Your task to perform on an android device: Open Android settings Image 0: 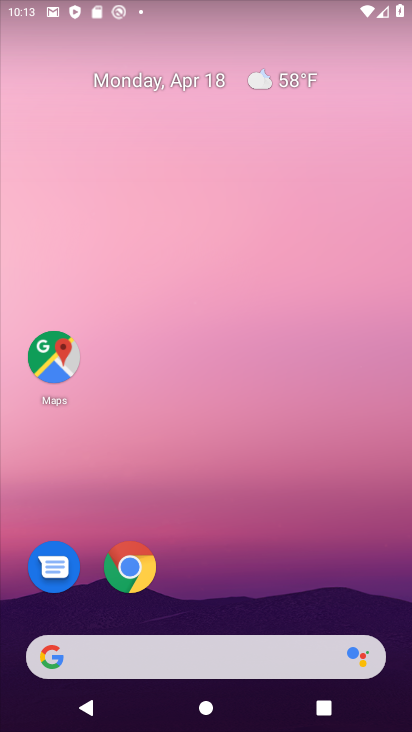
Step 0: drag from (221, 722) to (222, 103)
Your task to perform on an android device: Open Android settings Image 1: 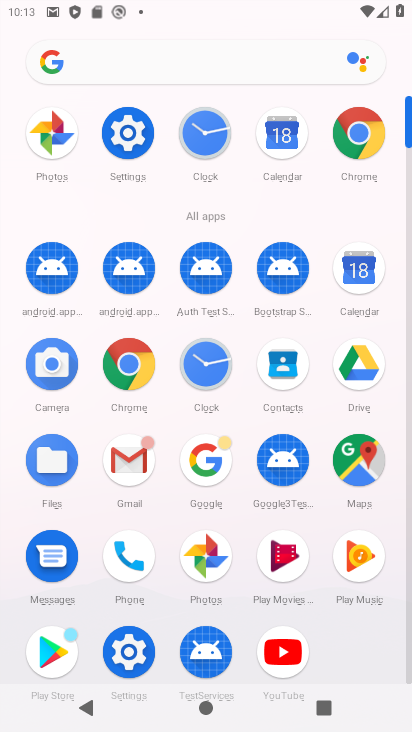
Step 1: click (124, 135)
Your task to perform on an android device: Open Android settings Image 2: 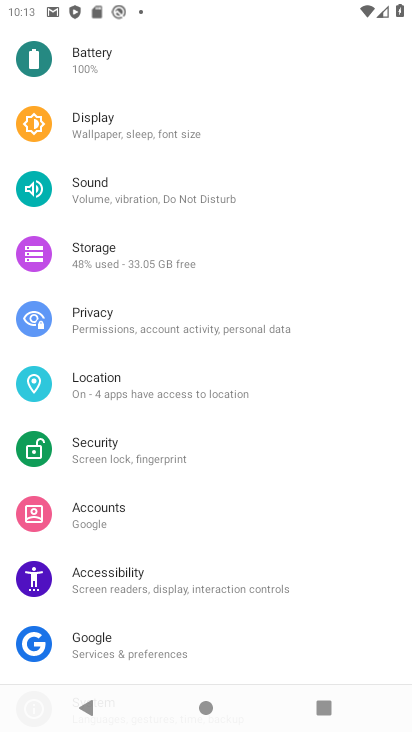
Step 2: drag from (237, 641) to (240, 192)
Your task to perform on an android device: Open Android settings Image 3: 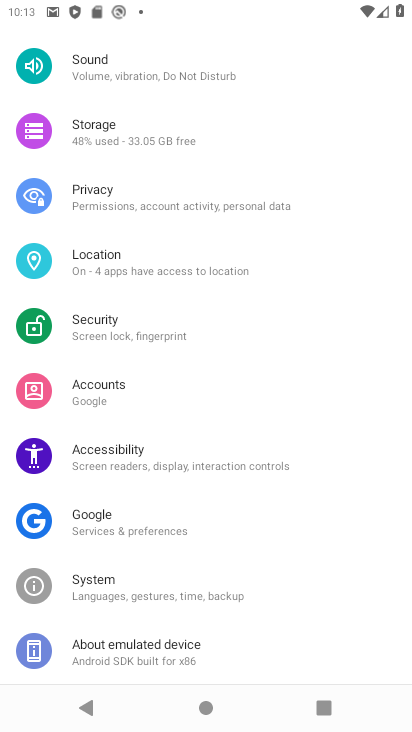
Step 3: click (123, 652)
Your task to perform on an android device: Open Android settings Image 4: 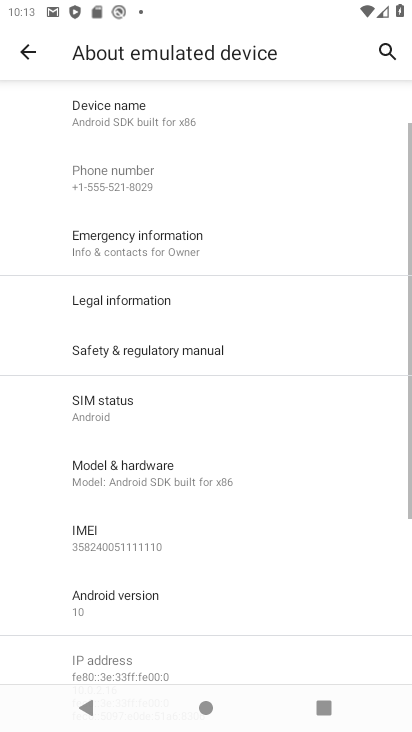
Step 4: drag from (175, 639) to (210, 277)
Your task to perform on an android device: Open Android settings Image 5: 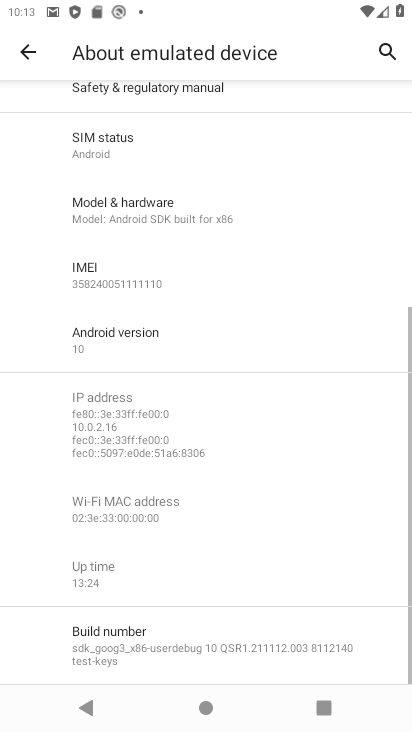
Step 5: click (117, 335)
Your task to perform on an android device: Open Android settings Image 6: 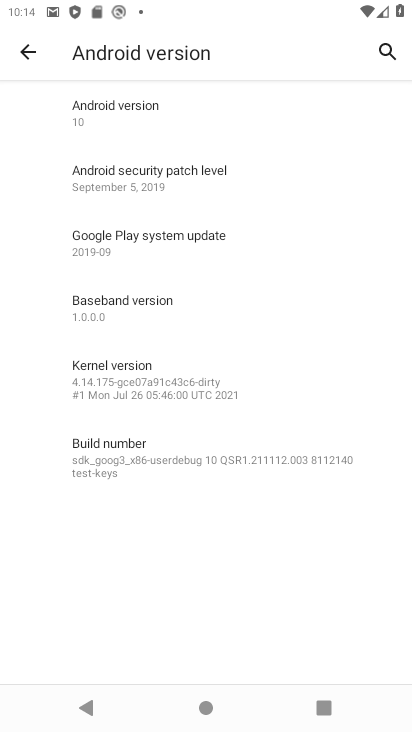
Step 6: task complete